Your task to perform on an android device: change the clock display to digital Image 0: 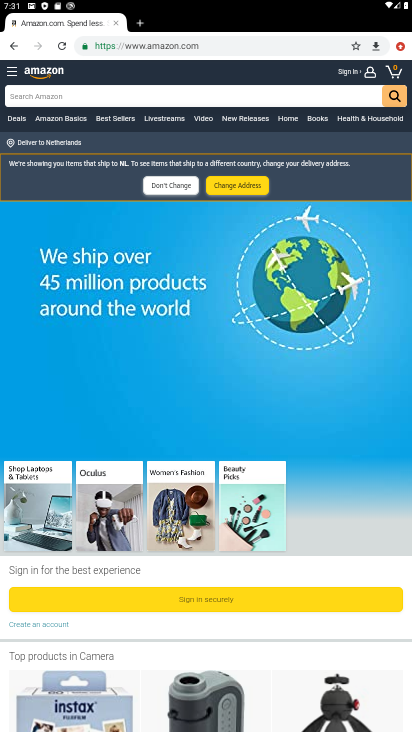
Step 0: press home button
Your task to perform on an android device: change the clock display to digital Image 1: 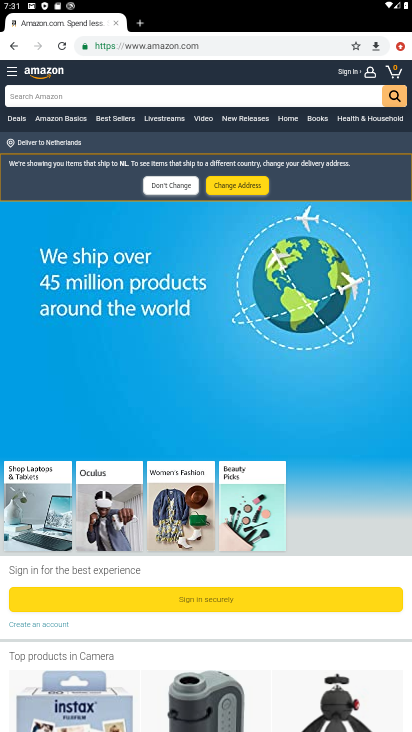
Step 1: drag from (195, 639) to (262, 159)
Your task to perform on an android device: change the clock display to digital Image 2: 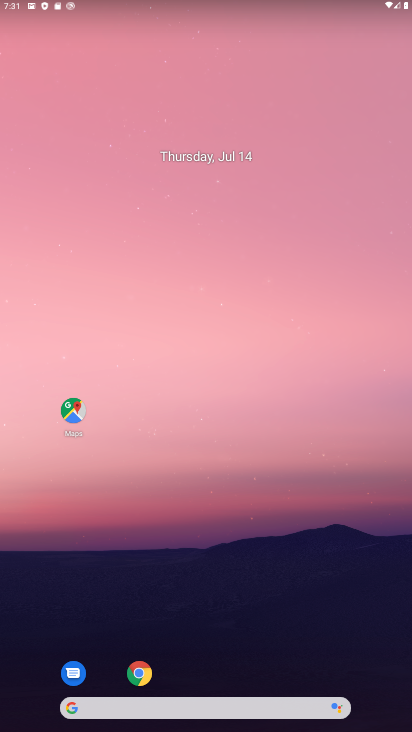
Step 2: drag from (209, 664) to (292, 190)
Your task to perform on an android device: change the clock display to digital Image 3: 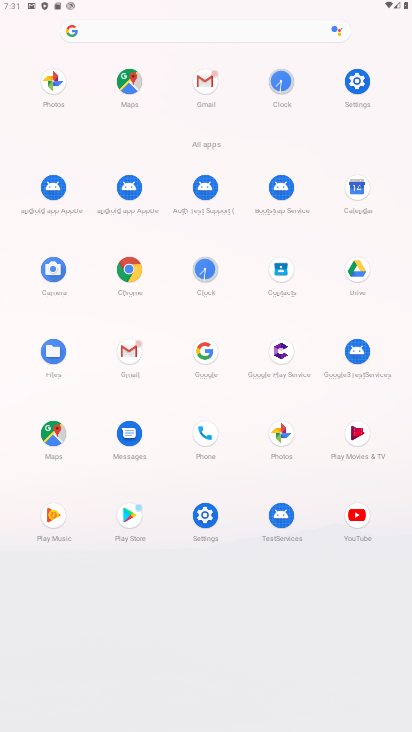
Step 3: click (201, 518)
Your task to perform on an android device: change the clock display to digital Image 4: 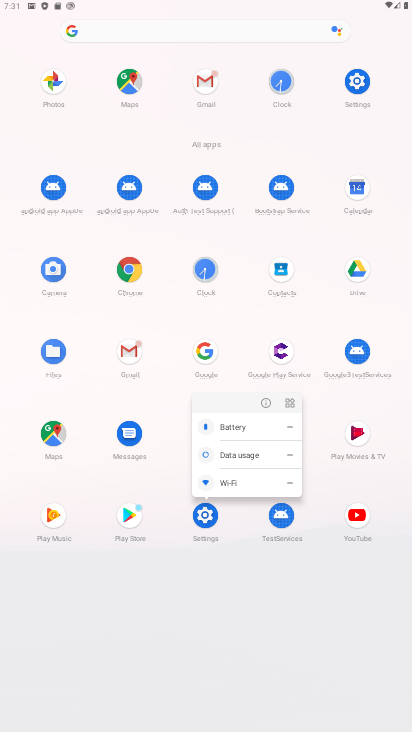
Step 4: click (265, 401)
Your task to perform on an android device: change the clock display to digital Image 5: 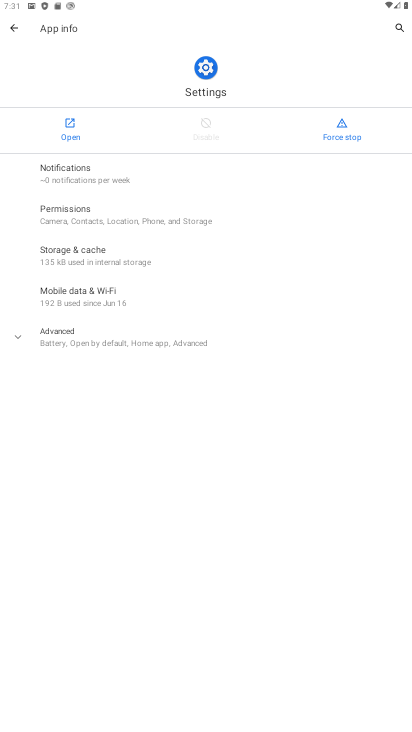
Step 5: click (68, 130)
Your task to perform on an android device: change the clock display to digital Image 6: 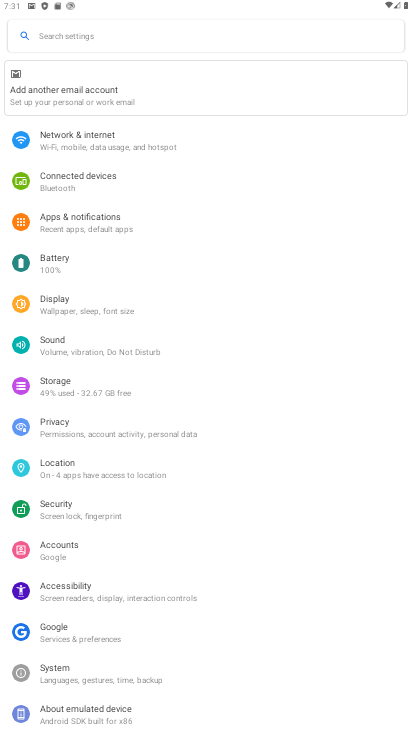
Step 6: press home button
Your task to perform on an android device: change the clock display to digital Image 7: 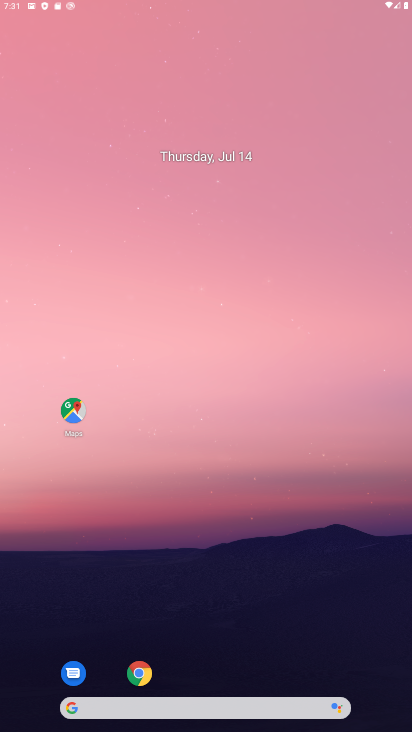
Step 7: drag from (199, 522) to (252, 186)
Your task to perform on an android device: change the clock display to digital Image 8: 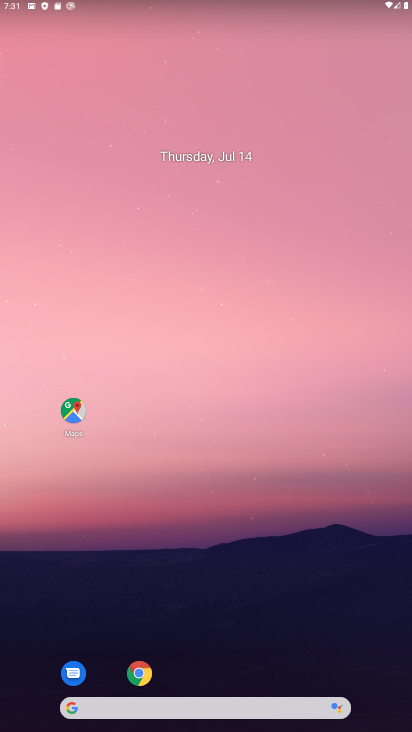
Step 8: drag from (190, 664) to (262, 287)
Your task to perform on an android device: change the clock display to digital Image 9: 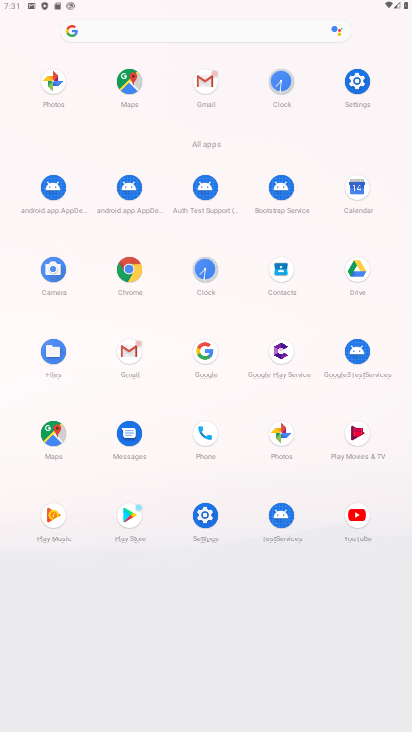
Step 9: click (197, 270)
Your task to perform on an android device: change the clock display to digital Image 10: 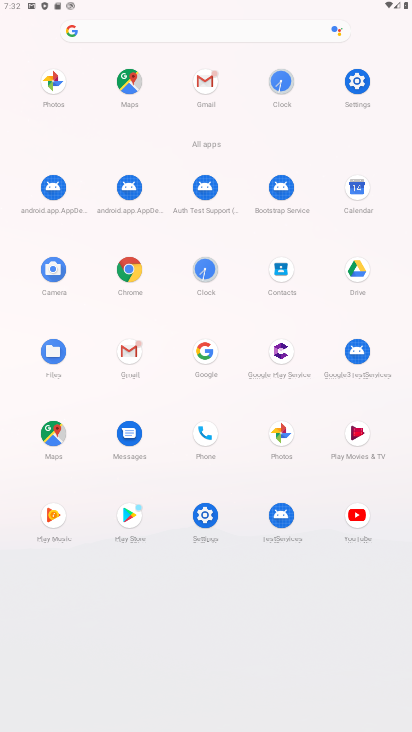
Step 10: drag from (256, 594) to (295, 417)
Your task to perform on an android device: change the clock display to digital Image 11: 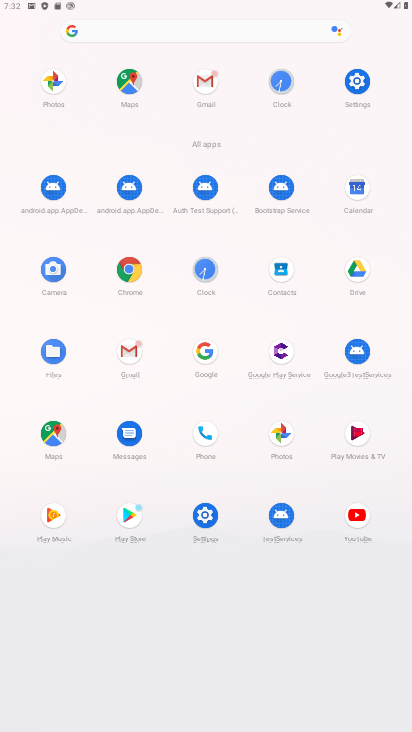
Step 11: click (191, 275)
Your task to perform on an android device: change the clock display to digital Image 12: 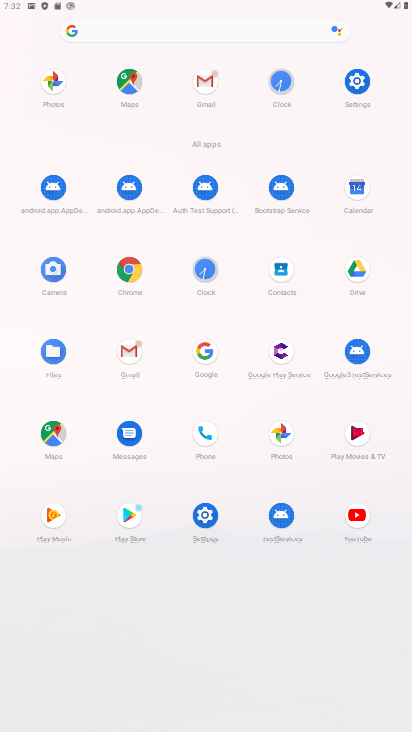
Step 12: click (193, 275)
Your task to perform on an android device: change the clock display to digital Image 13: 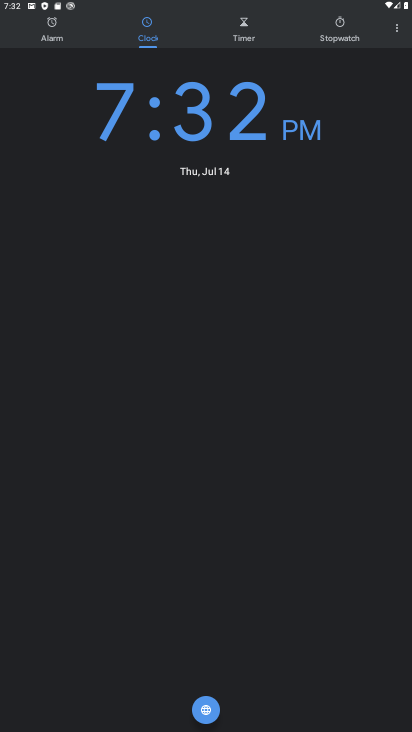
Step 13: click (393, 28)
Your task to perform on an android device: change the clock display to digital Image 14: 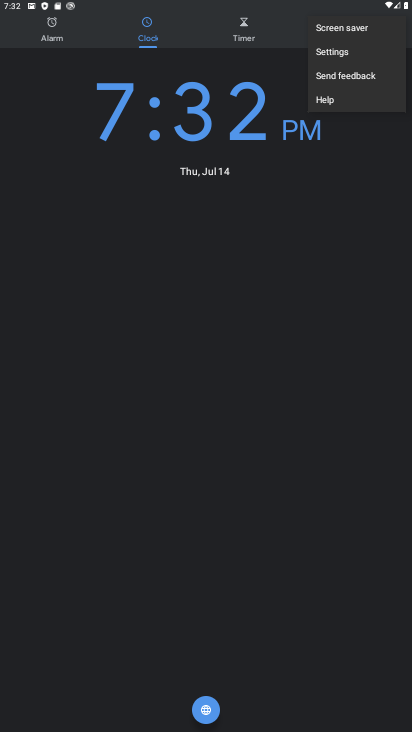
Step 14: click (351, 58)
Your task to perform on an android device: change the clock display to digital Image 15: 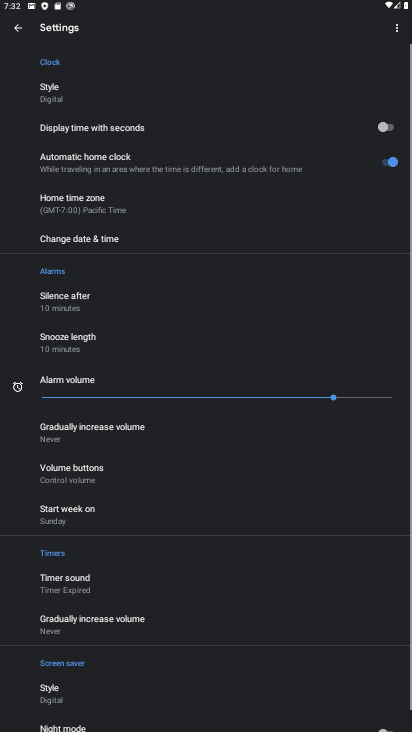
Step 15: drag from (228, 456) to (259, 221)
Your task to perform on an android device: change the clock display to digital Image 16: 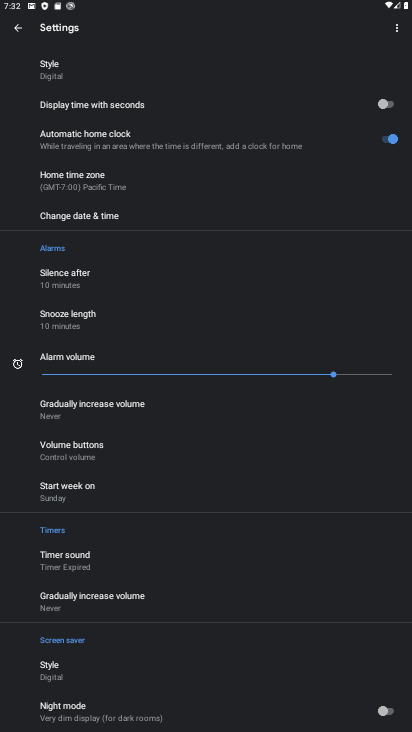
Step 16: drag from (222, 241) to (179, 523)
Your task to perform on an android device: change the clock display to digital Image 17: 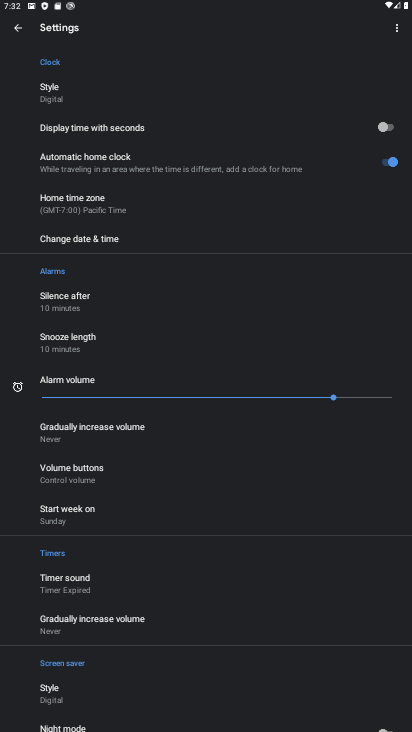
Step 17: click (78, 90)
Your task to perform on an android device: change the clock display to digital Image 18: 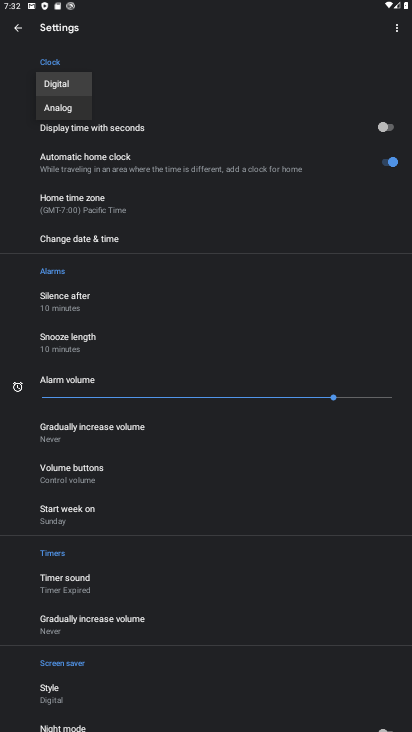
Step 18: task complete